Your task to perform on an android device: toggle pop-ups in chrome Image 0: 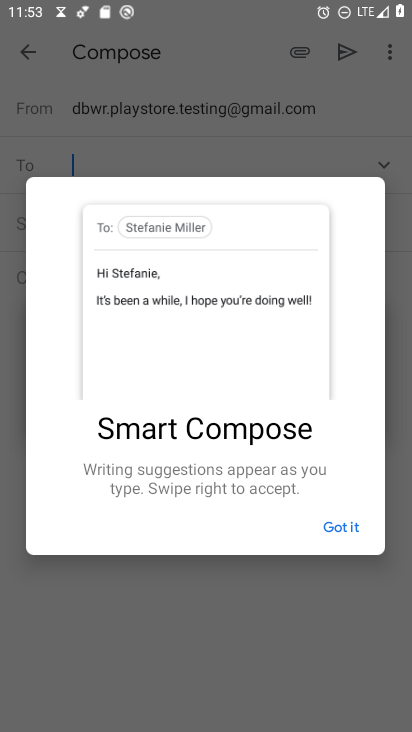
Step 0: press home button
Your task to perform on an android device: toggle pop-ups in chrome Image 1: 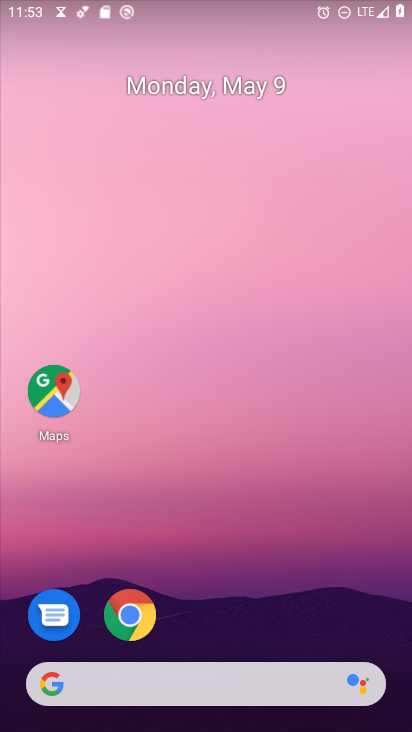
Step 1: click (124, 610)
Your task to perform on an android device: toggle pop-ups in chrome Image 2: 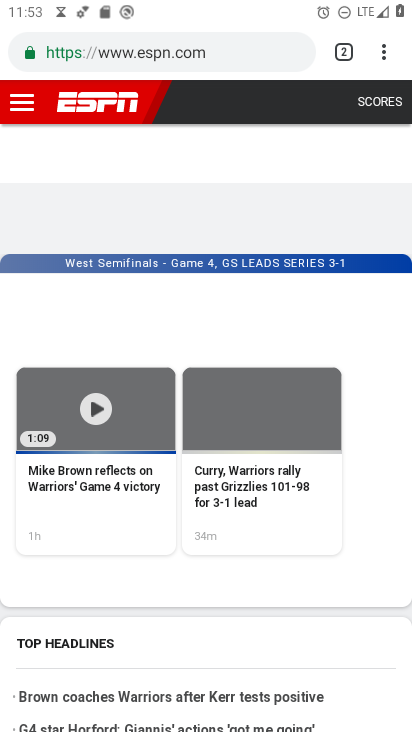
Step 2: click (385, 58)
Your task to perform on an android device: toggle pop-ups in chrome Image 3: 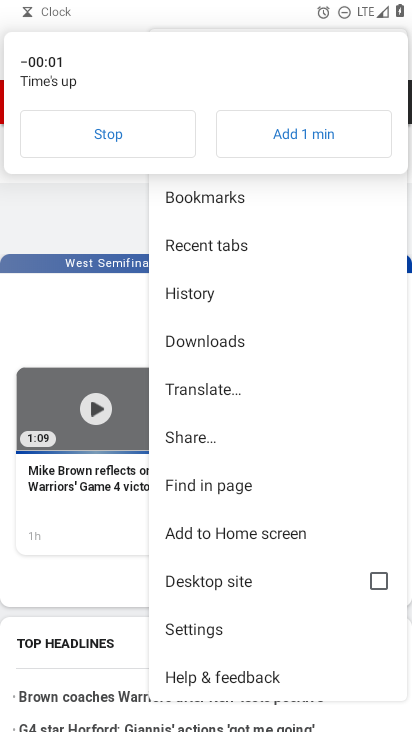
Step 3: click (198, 625)
Your task to perform on an android device: toggle pop-ups in chrome Image 4: 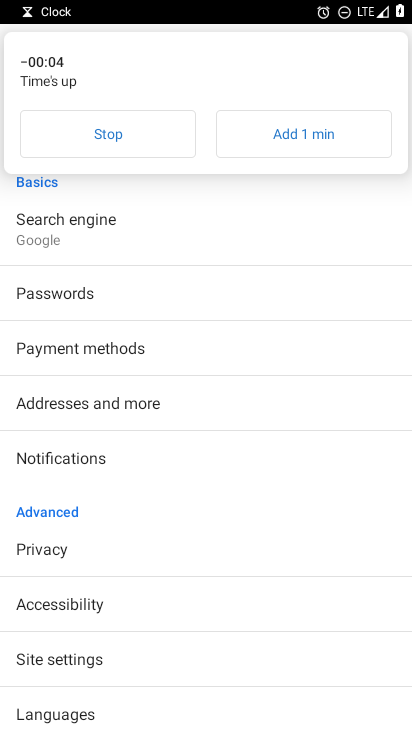
Step 4: click (96, 662)
Your task to perform on an android device: toggle pop-ups in chrome Image 5: 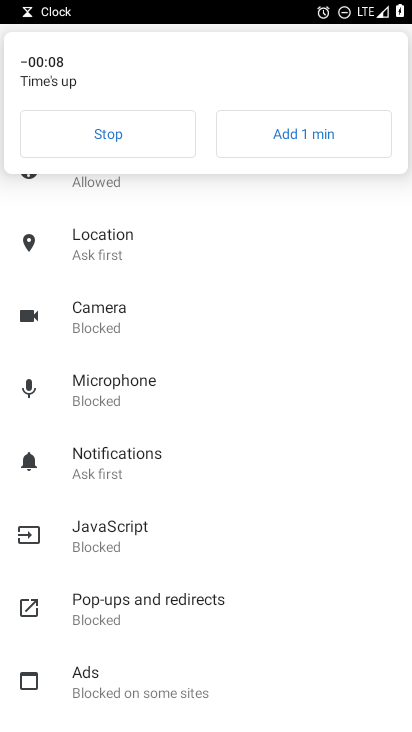
Step 5: click (152, 603)
Your task to perform on an android device: toggle pop-ups in chrome Image 6: 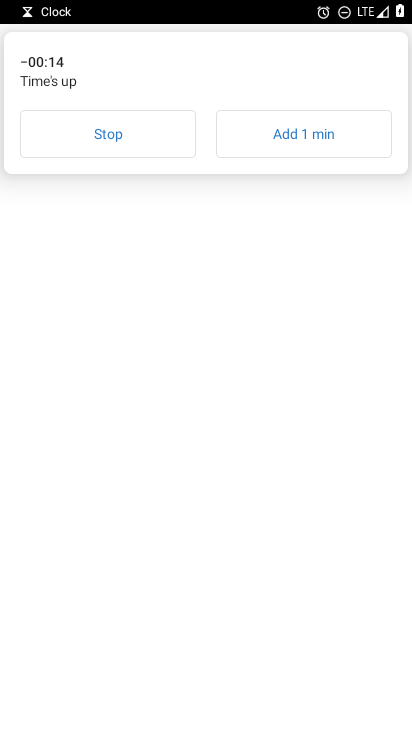
Step 6: click (111, 131)
Your task to perform on an android device: toggle pop-ups in chrome Image 7: 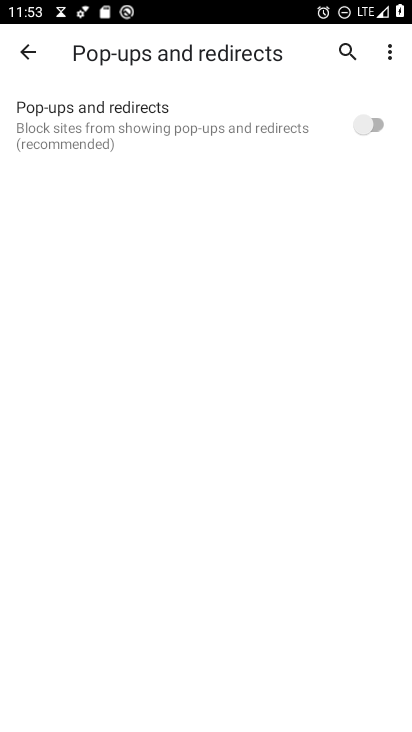
Step 7: click (378, 121)
Your task to perform on an android device: toggle pop-ups in chrome Image 8: 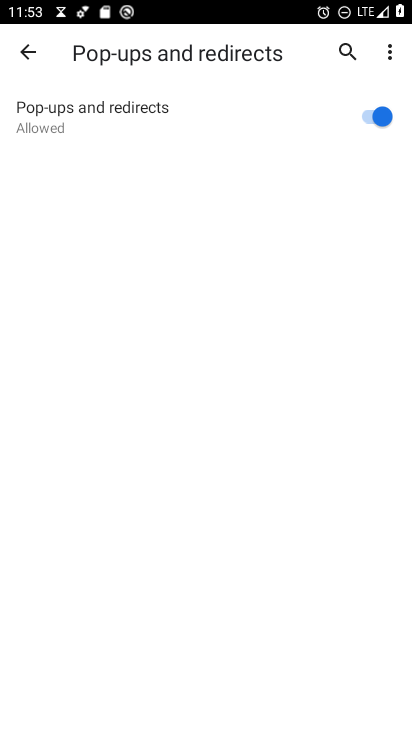
Step 8: task complete